Your task to perform on an android device: Go to Wikipedia Image 0: 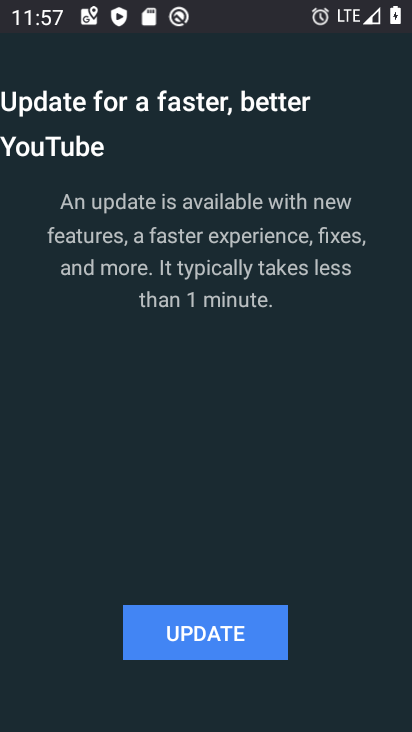
Step 0: click (208, 632)
Your task to perform on an android device: Go to Wikipedia Image 1: 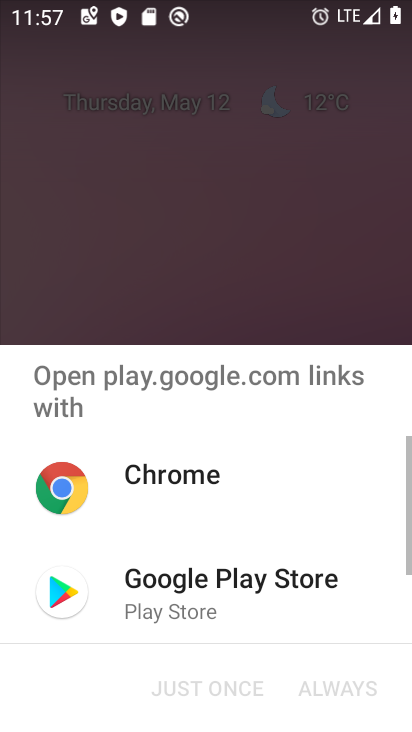
Step 1: click (250, 582)
Your task to perform on an android device: Go to Wikipedia Image 2: 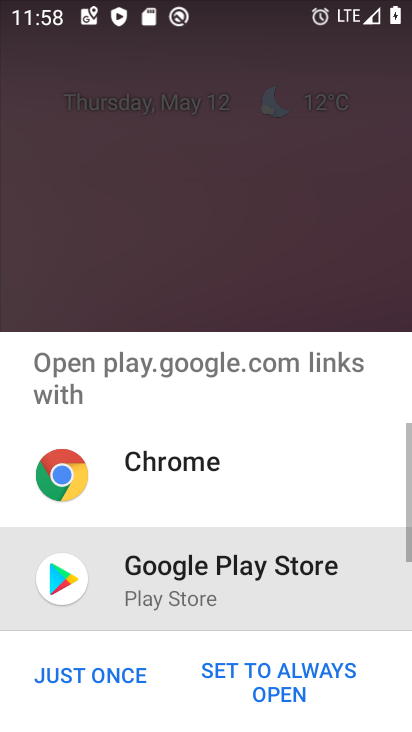
Step 2: click (297, 688)
Your task to perform on an android device: Go to Wikipedia Image 3: 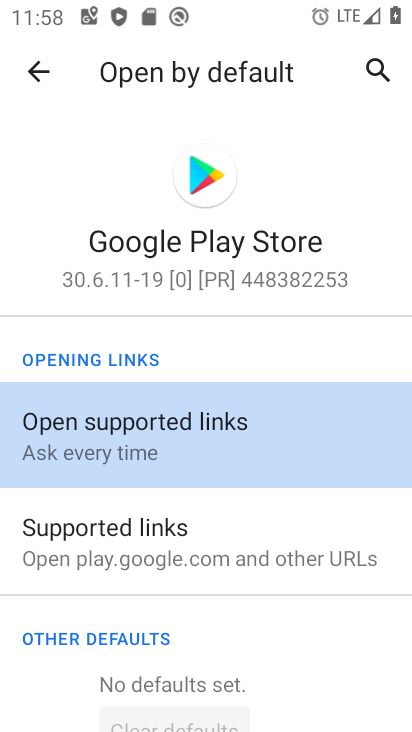
Step 3: press home button
Your task to perform on an android device: Go to Wikipedia Image 4: 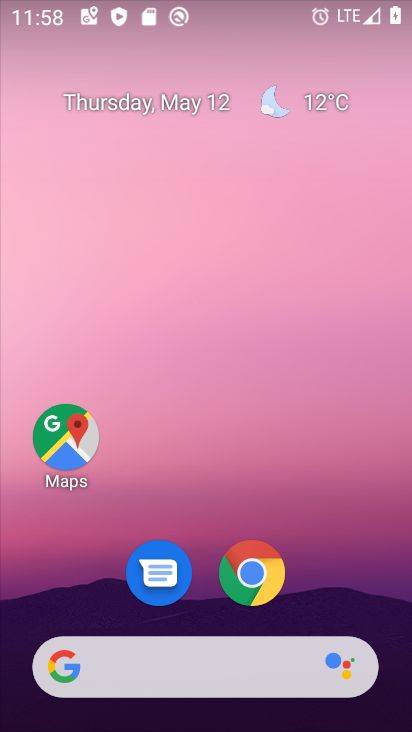
Step 4: click (256, 633)
Your task to perform on an android device: Go to Wikipedia Image 5: 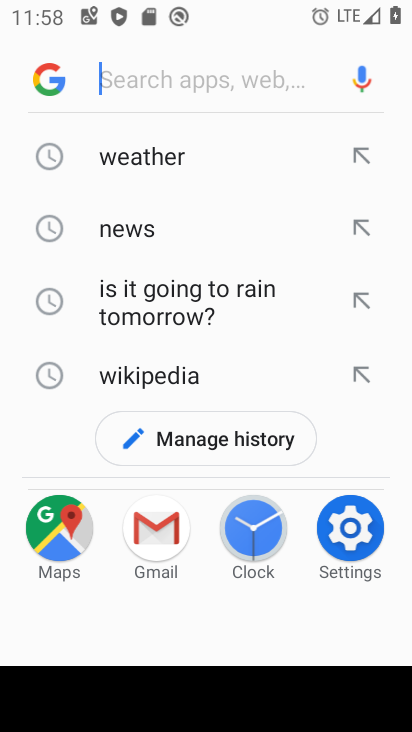
Step 5: type "wikipedia "
Your task to perform on an android device: Go to Wikipedia Image 6: 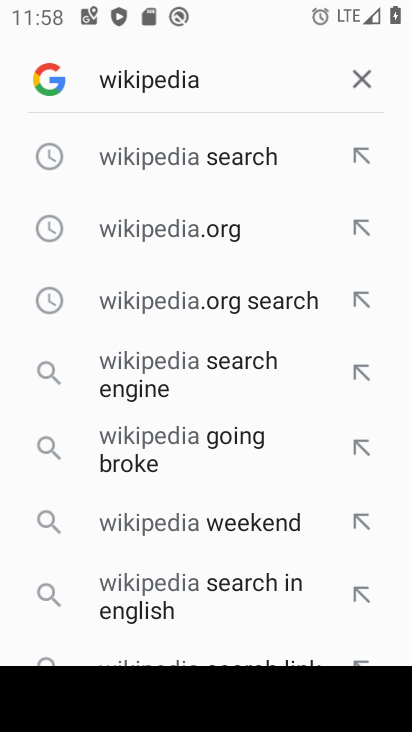
Step 6: click (260, 149)
Your task to perform on an android device: Go to Wikipedia Image 7: 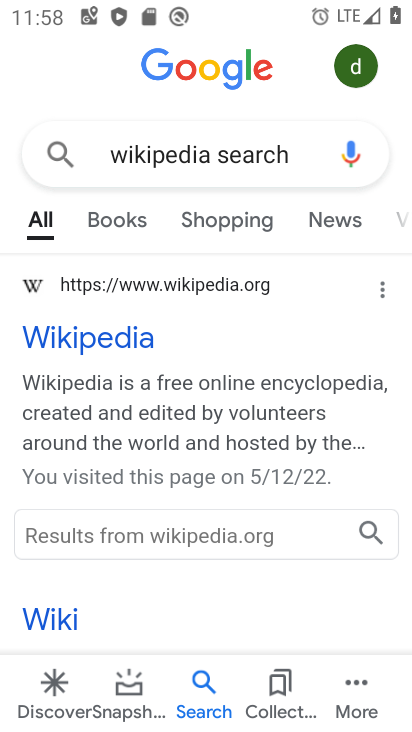
Step 7: click (207, 285)
Your task to perform on an android device: Go to Wikipedia Image 8: 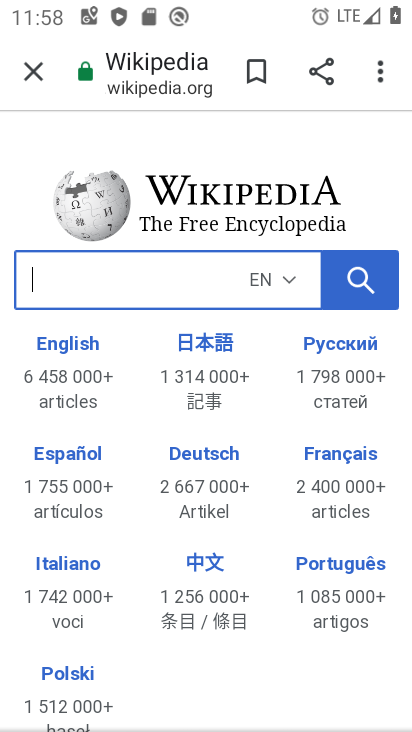
Step 8: task complete